Your task to perform on an android device: add a contact in the contacts app Image 0: 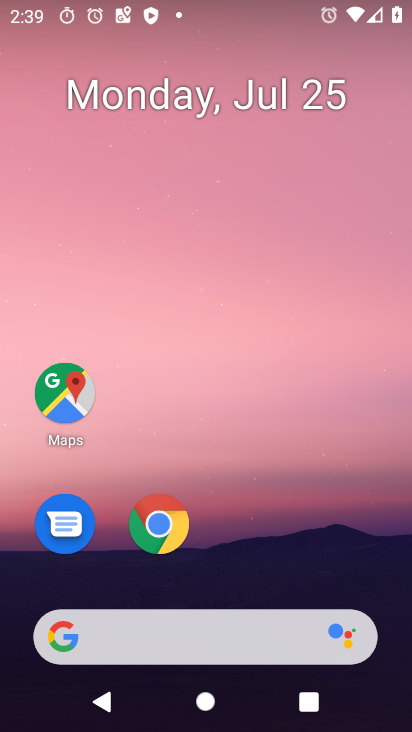
Step 0: press home button
Your task to perform on an android device: add a contact in the contacts app Image 1: 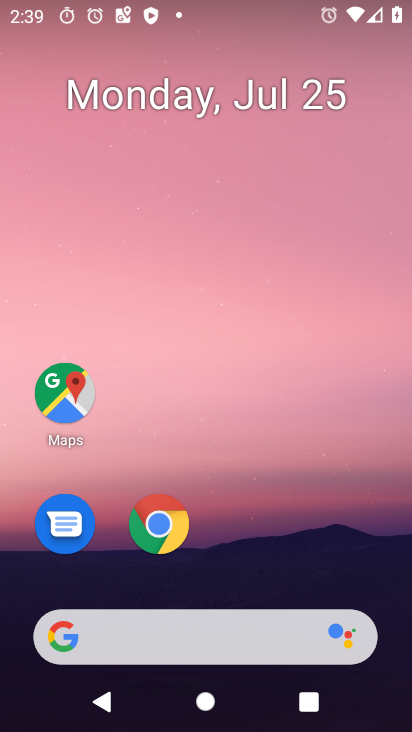
Step 1: drag from (266, 586) to (293, 75)
Your task to perform on an android device: add a contact in the contacts app Image 2: 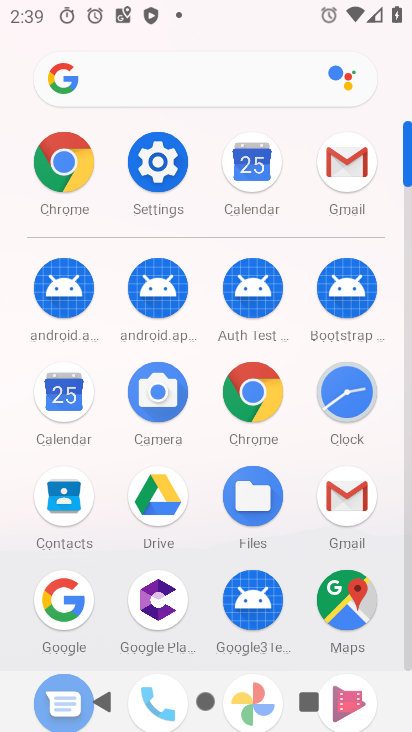
Step 2: click (64, 502)
Your task to perform on an android device: add a contact in the contacts app Image 3: 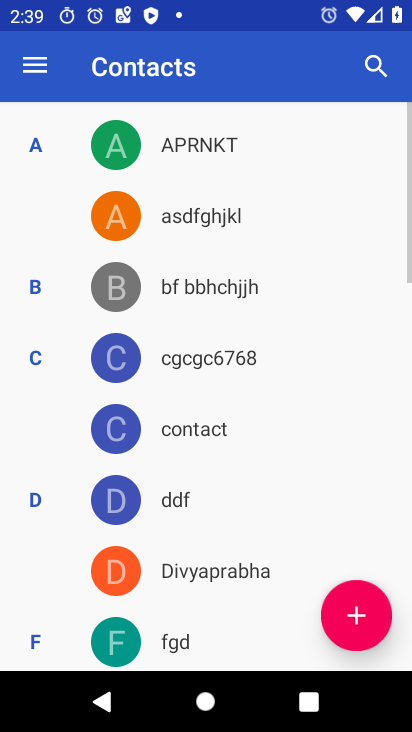
Step 3: click (361, 613)
Your task to perform on an android device: add a contact in the contacts app Image 4: 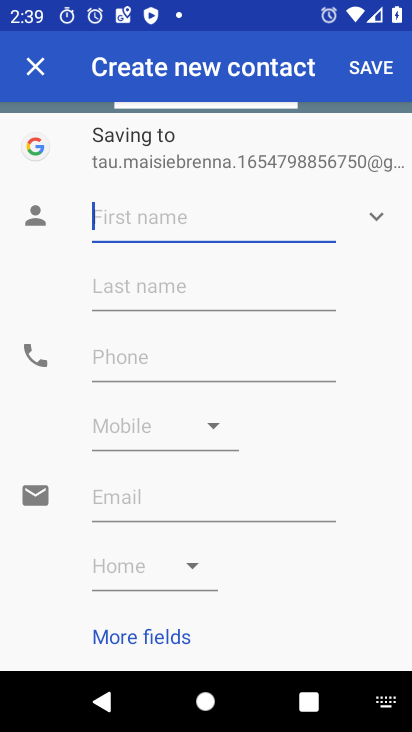
Step 4: type "bmnmnm"
Your task to perform on an android device: add a contact in the contacts app Image 5: 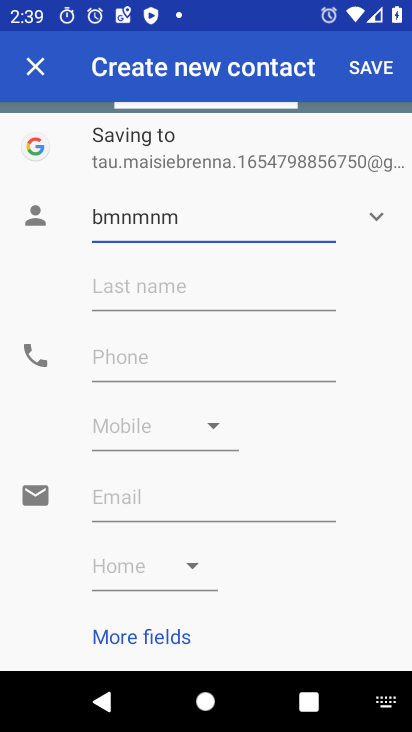
Step 5: click (210, 354)
Your task to perform on an android device: add a contact in the contacts app Image 6: 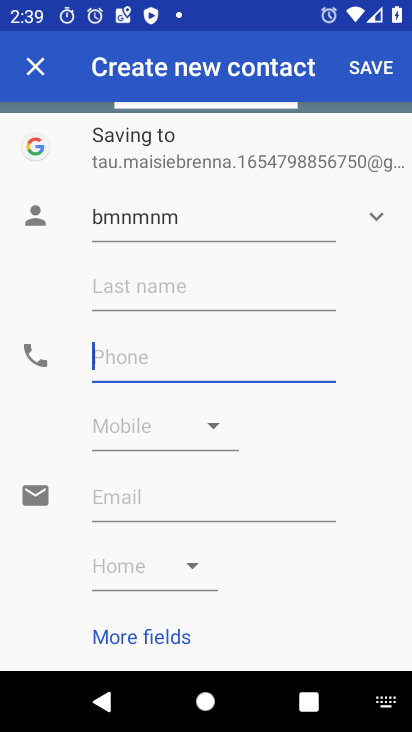
Step 6: type "787878"
Your task to perform on an android device: add a contact in the contacts app Image 7: 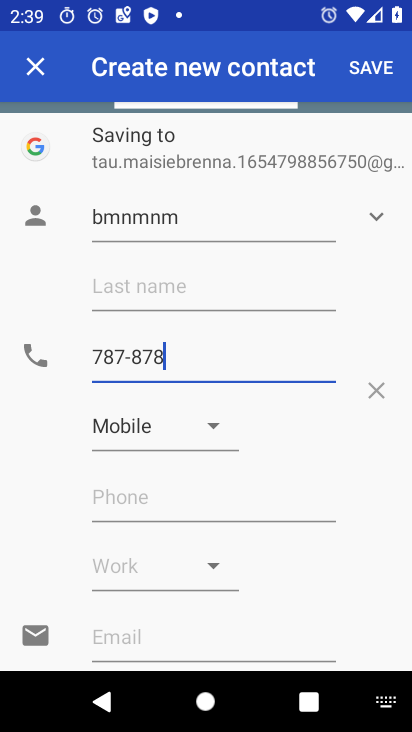
Step 7: click (368, 69)
Your task to perform on an android device: add a contact in the contacts app Image 8: 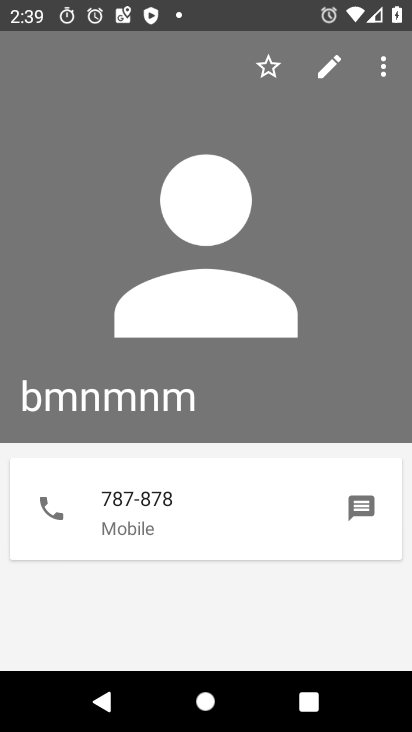
Step 8: task complete